Your task to perform on an android device: Open wifi settings Image 0: 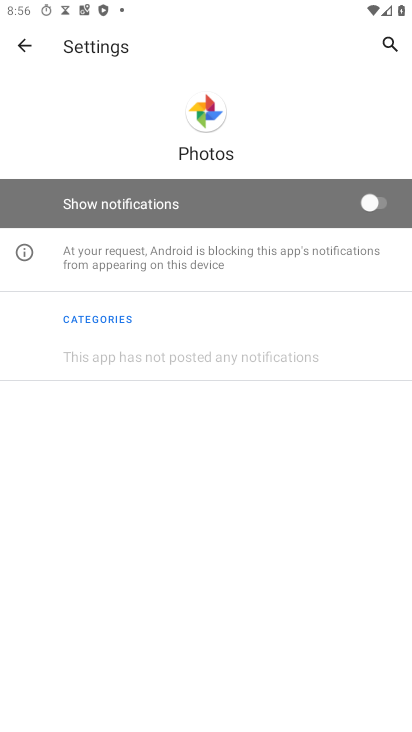
Step 0: press home button
Your task to perform on an android device: Open wifi settings Image 1: 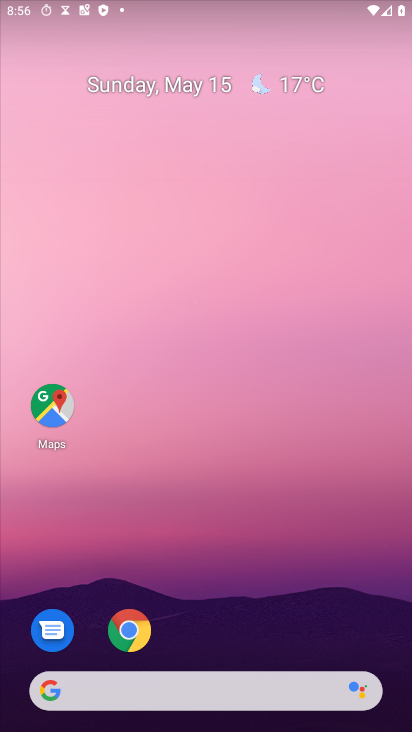
Step 1: drag from (298, 475) to (271, 8)
Your task to perform on an android device: Open wifi settings Image 2: 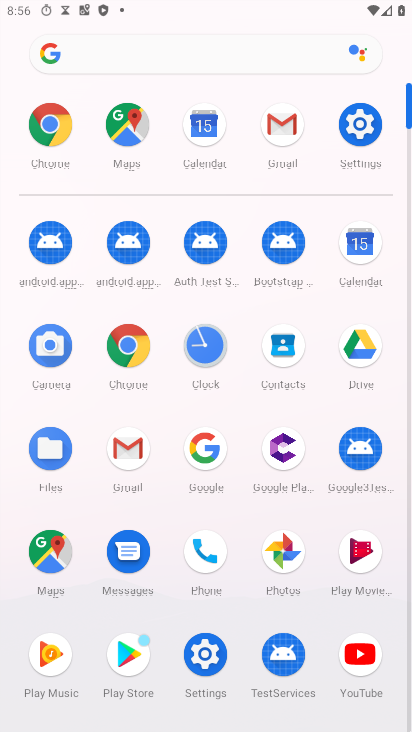
Step 2: click (363, 122)
Your task to perform on an android device: Open wifi settings Image 3: 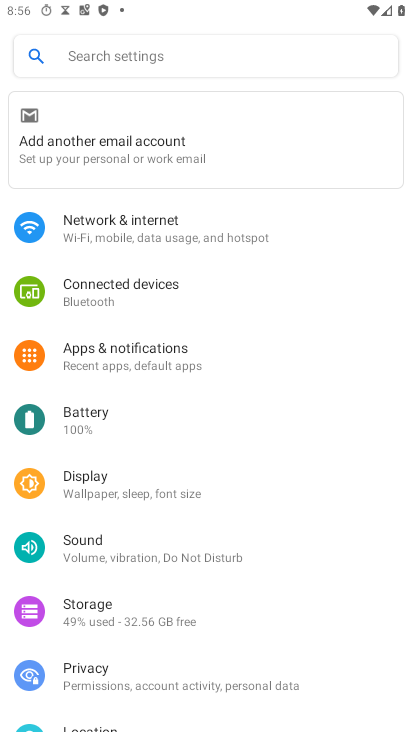
Step 3: click (113, 222)
Your task to perform on an android device: Open wifi settings Image 4: 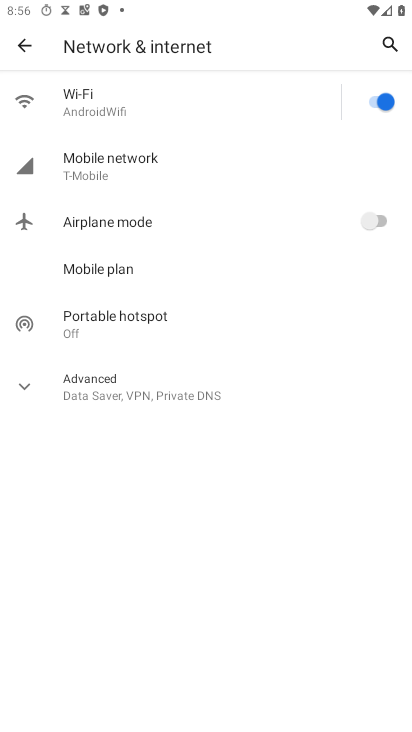
Step 4: click (268, 105)
Your task to perform on an android device: Open wifi settings Image 5: 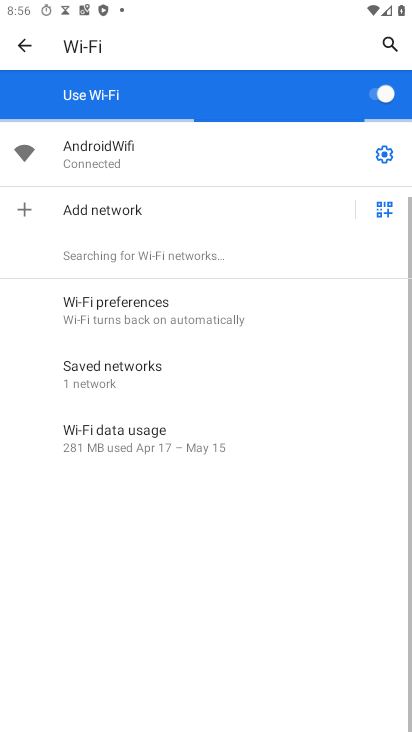
Step 5: task complete